Your task to perform on an android device: set the stopwatch Image 0: 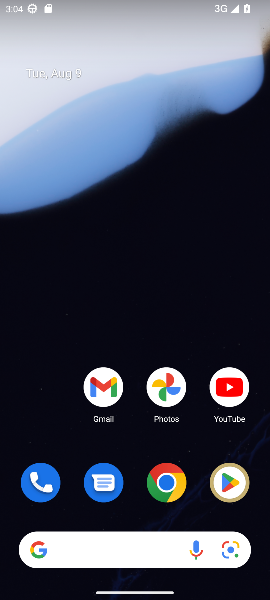
Step 0: drag from (132, 440) to (169, 140)
Your task to perform on an android device: set the stopwatch Image 1: 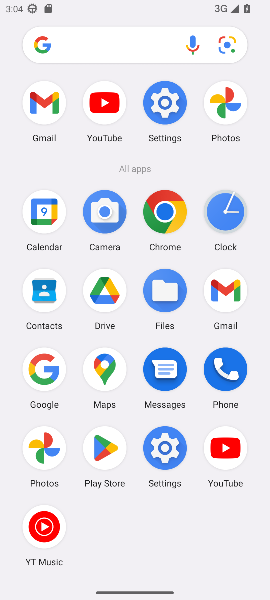
Step 1: click (227, 216)
Your task to perform on an android device: set the stopwatch Image 2: 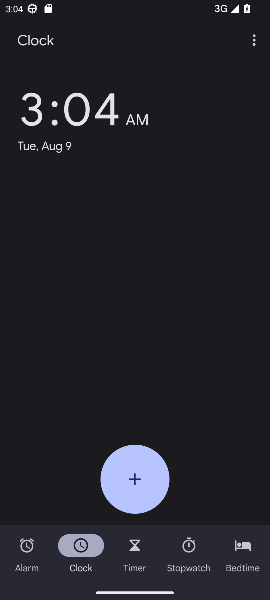
Step 2: click (190, 543)
Your task to perform on an android device: set the stopwatch Image 3: 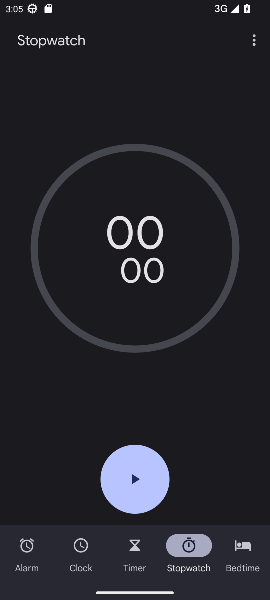
Step 3: task complete